Your task to perform on an android device: turn on data saver in the chrome app Image 0: 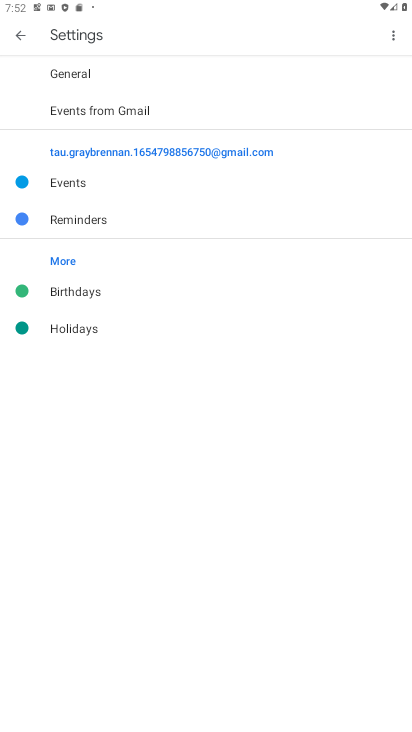
Step 0: click (12, 34)
Your task to perform on an android device: turn on data saver in the chrome app Image 1: 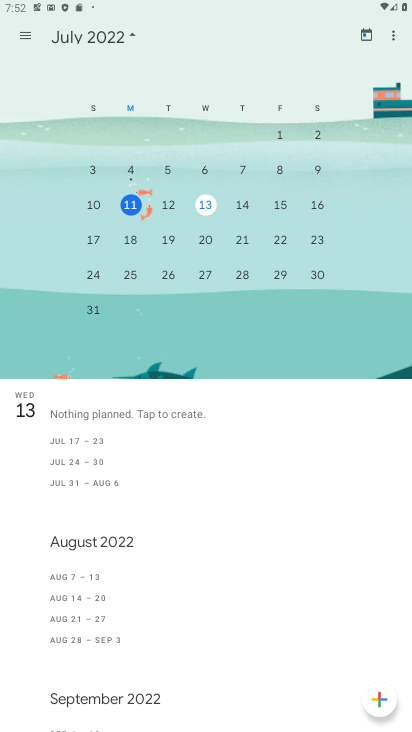
Step 1: press back button
Your task to perform on an android device: turn on data saver in the chrome app Image 2: 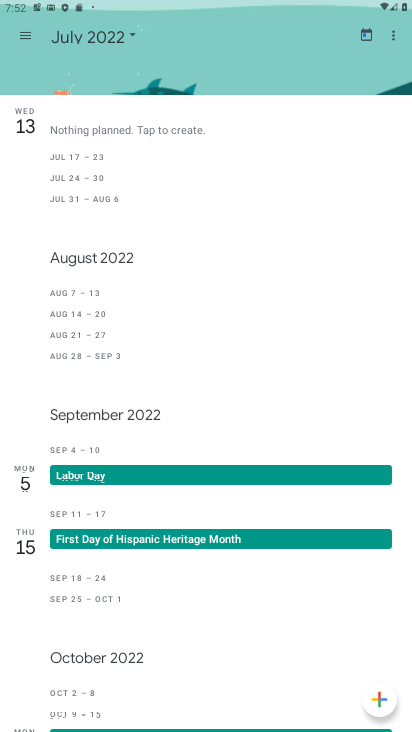
Step 2: press home button
Your task to perform on an android device: turn on data saver in the chrome app Image 3: 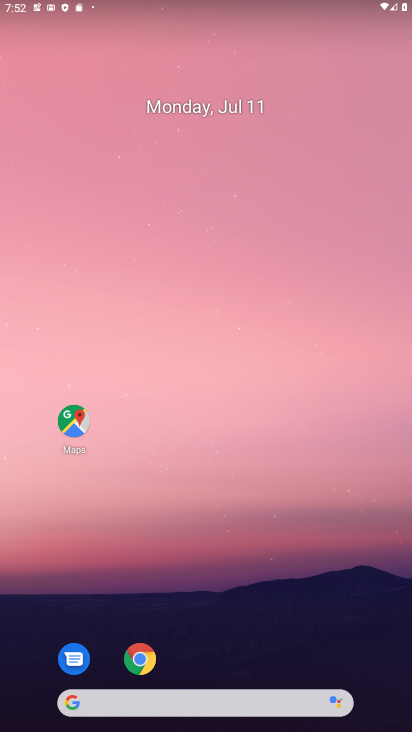
Step 3: drag from (236, 654) to (207, 66)
Your task to perform on an android device: turn on data saver in the chrome app Image 4: 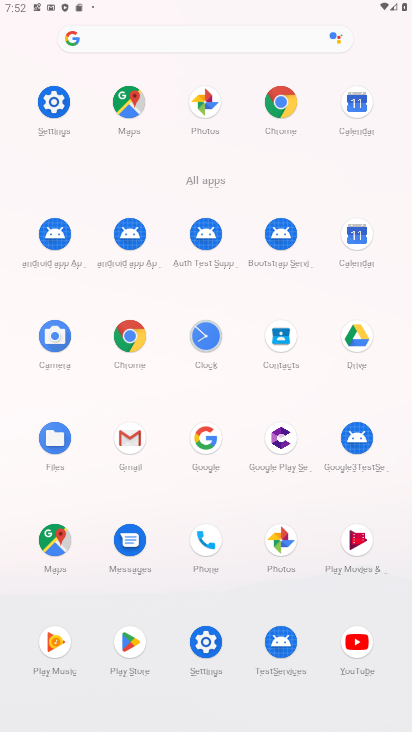
Step 4: click (132, 334)
Your task to perform on an android device: turn on data saver in the chrome app Image 5: 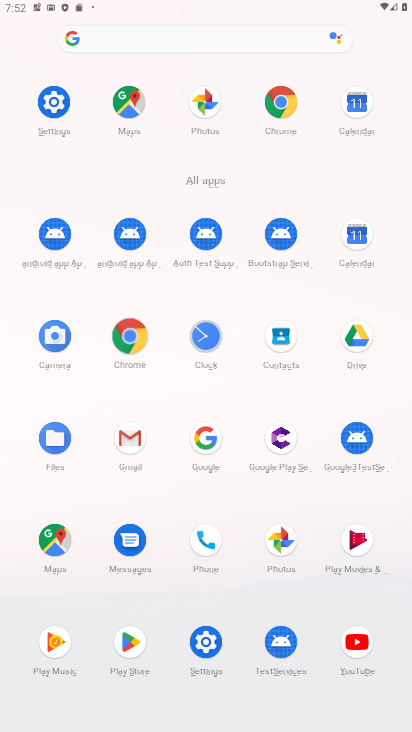
Step 5: click (140, 336)
Your task to perform on an android device: turn on data saver in the chrome app Image 6: 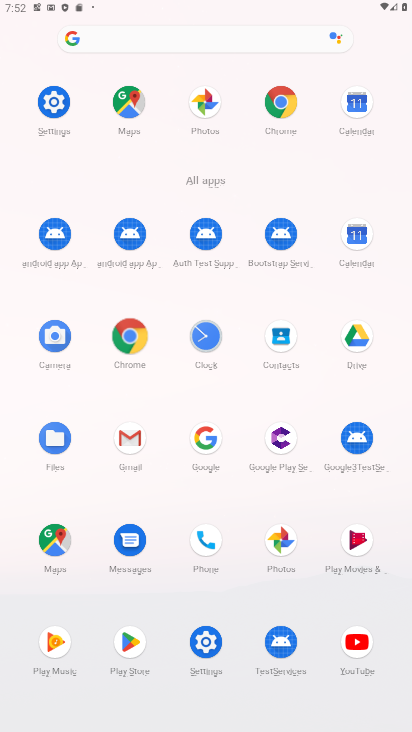
Step 6: click (142, 338)
Your task to perform on an android device: turn on data saver in the chrome app Image 7: 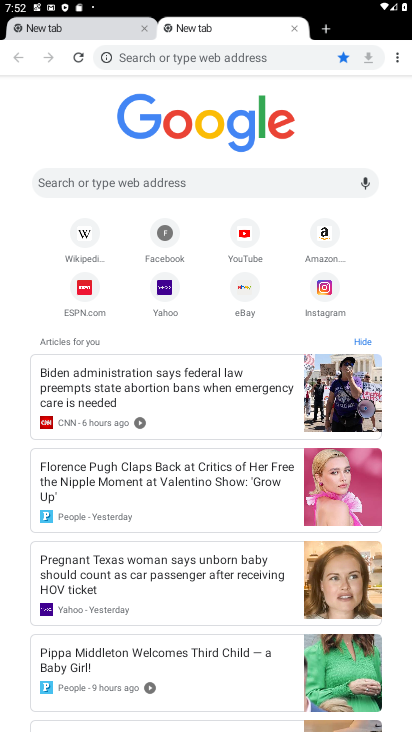
Step 7: click (399, 61)
Your task to perform on an android device: turn on data saver in the chrome app Image 8: 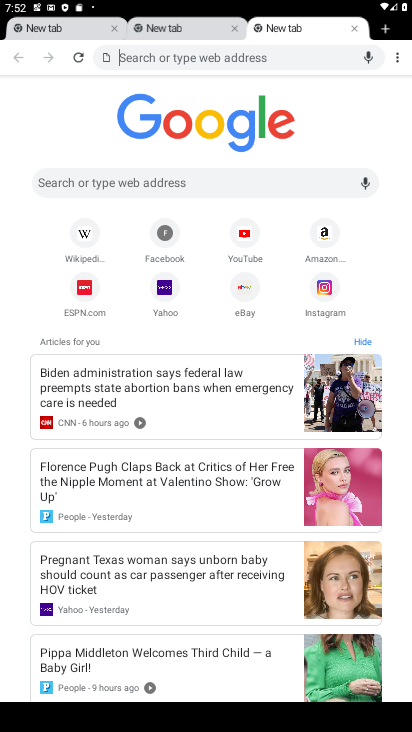
Step 8: drag from (395, 58) to (278, 254)
Your task to perform on an android device: turn on data saver in the chrome app Image 9: 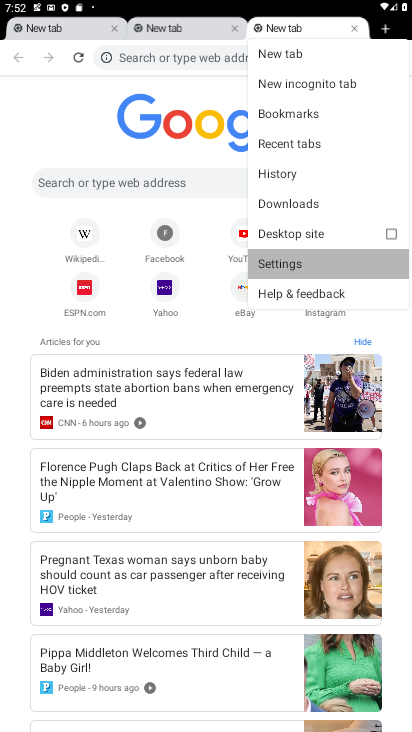
Step 9: click (277, 254)
Your task to perform on an android device: turn on data saver in the chrome app Image 10: 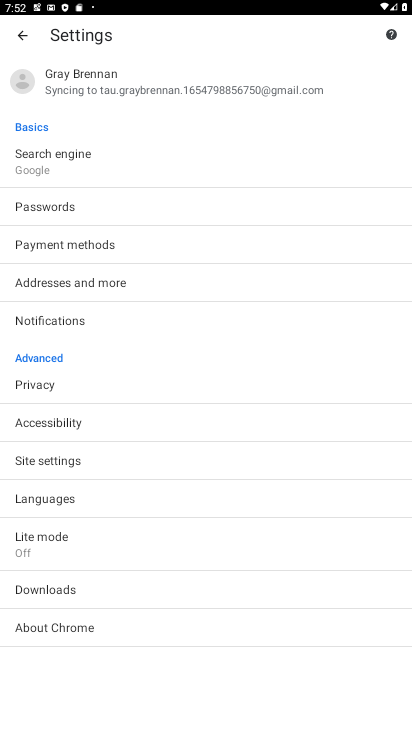
Step 10: click (41, 536)
Your task to perform on an android device: turn on data saver in the chrome app Image 11: 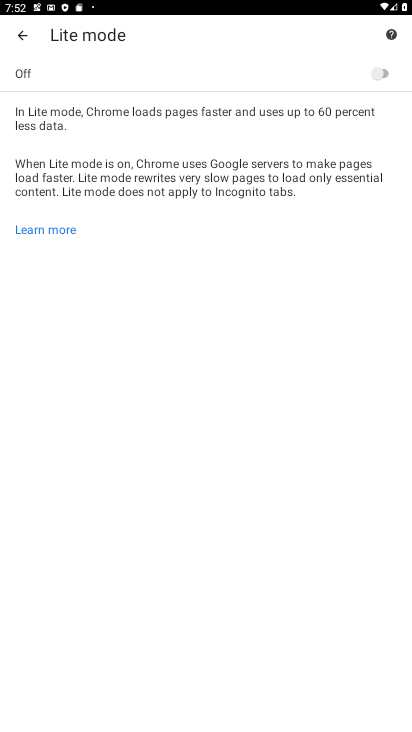
Step 11: click (375, 77)
Your task to perform on an android device: turn on data saver in the chrome app Image 12: 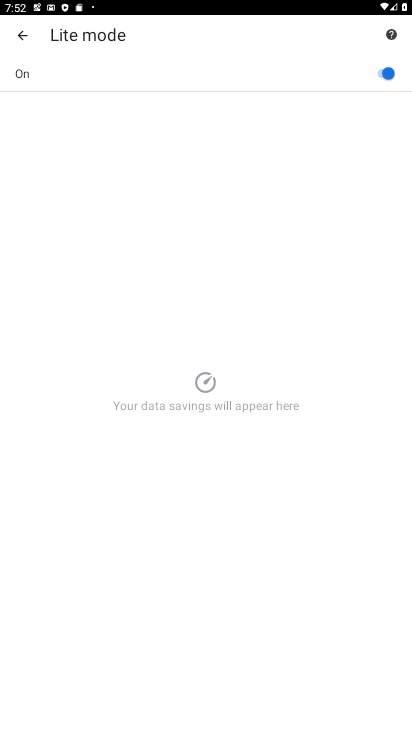
Step 12: task complete